Your task to perform on an android device: delete the emails in spam in the gmail app Image 0: 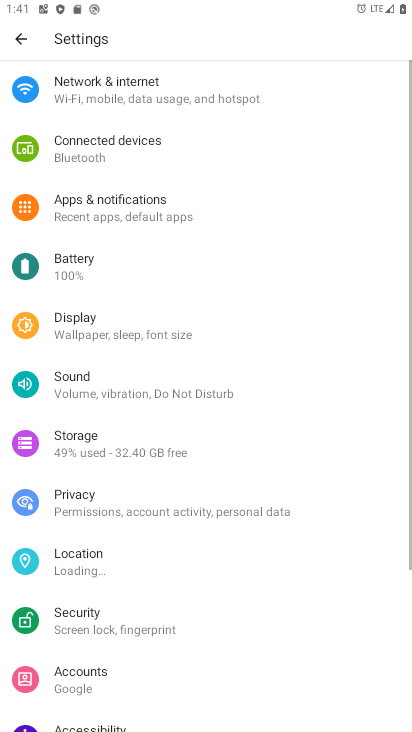
Step 0: drag from (358, 643) to (348, 251)
Your task to perform on an android device: delete the emails in spam in the gmail app Image 1: 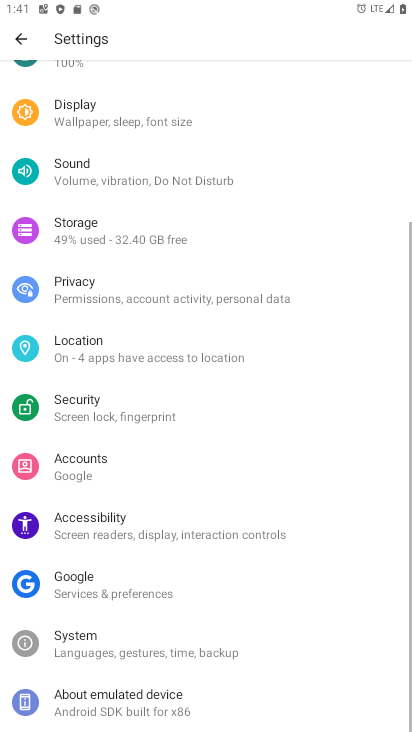
Step 1: press home button
Your task to perform on an android device: delete the emails in spam in the gmail app Image 2: 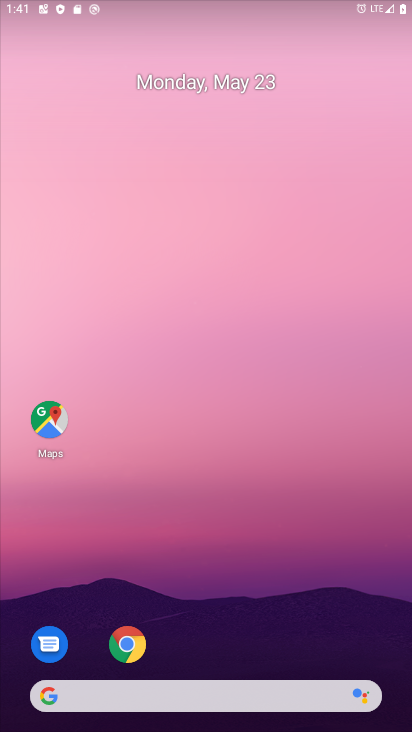
Step 2: drag from (344, 637) to (277, 69)
Your task to perform on an android device: delete the emails in spam in the gmail app Image 3: 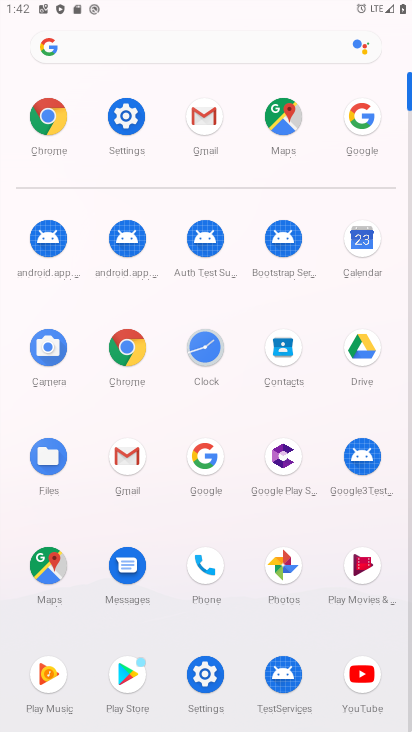
Step 3: click (208, 104)
Your task to perform on an android device: delete the emails in spam in the gmail app Image 4: 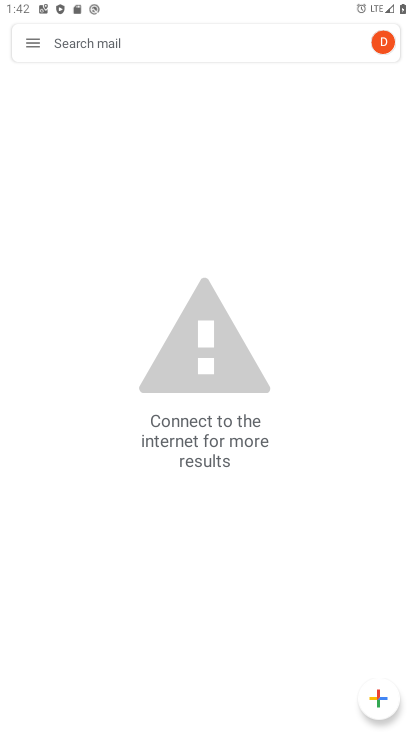
Step 4: click (24, 44)
Your task to perform on an android device: delete the emails in spam in the gmail app Image 5: 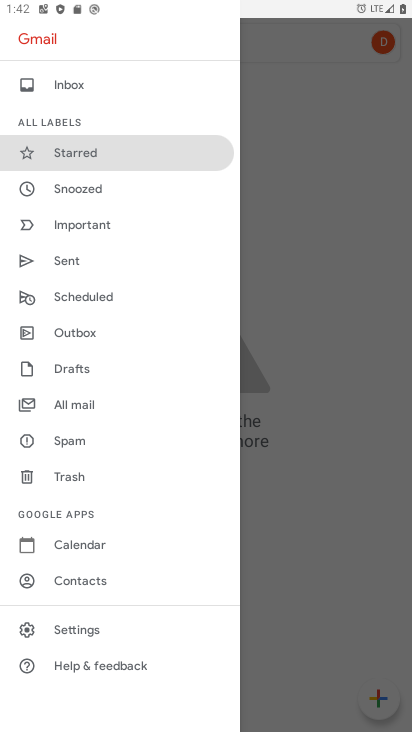
Step 5: click (90, 435)
Your task to perform on an android device: delete the emails in spam in the gmail app Image 6: 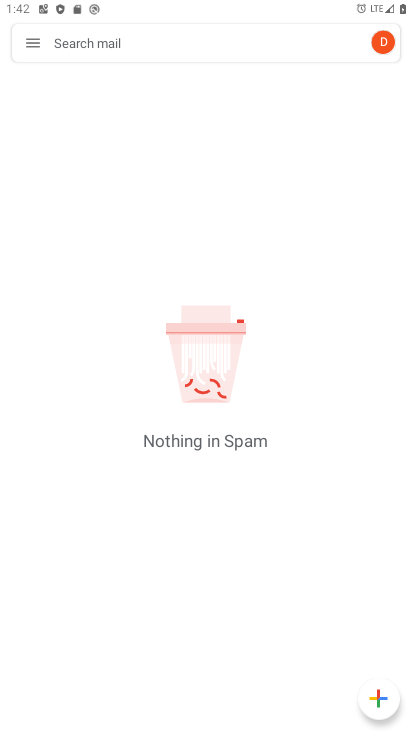
Step 6: task complete